Your task to perform on an android device: What's the weather like in Moscow? Image 0: 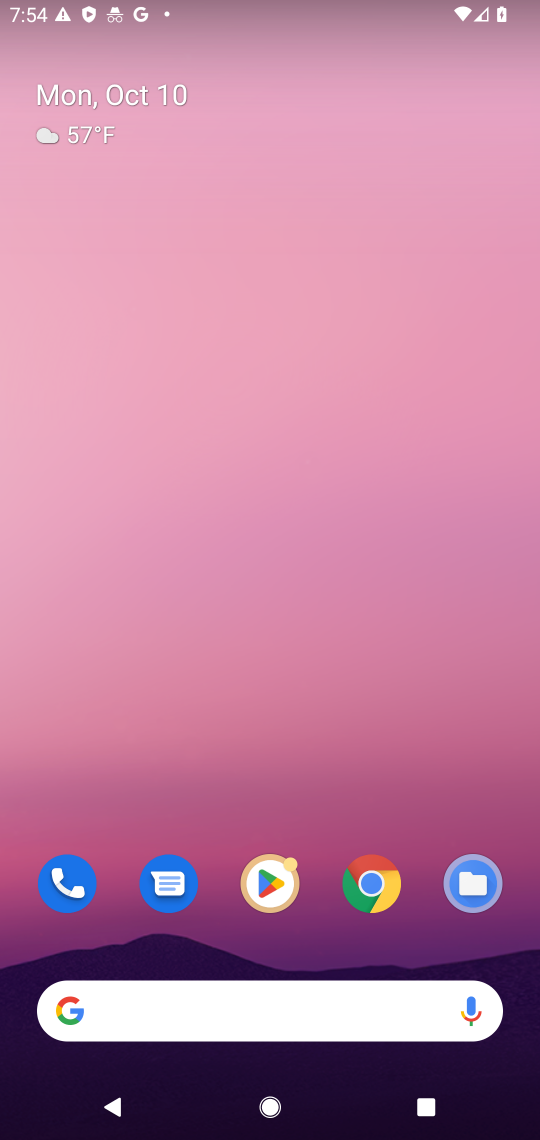
Step 0: drag from (223, 940) to (261, 568)
Your task to perform on an android device: What's the weather like in Moscow? Image 1: 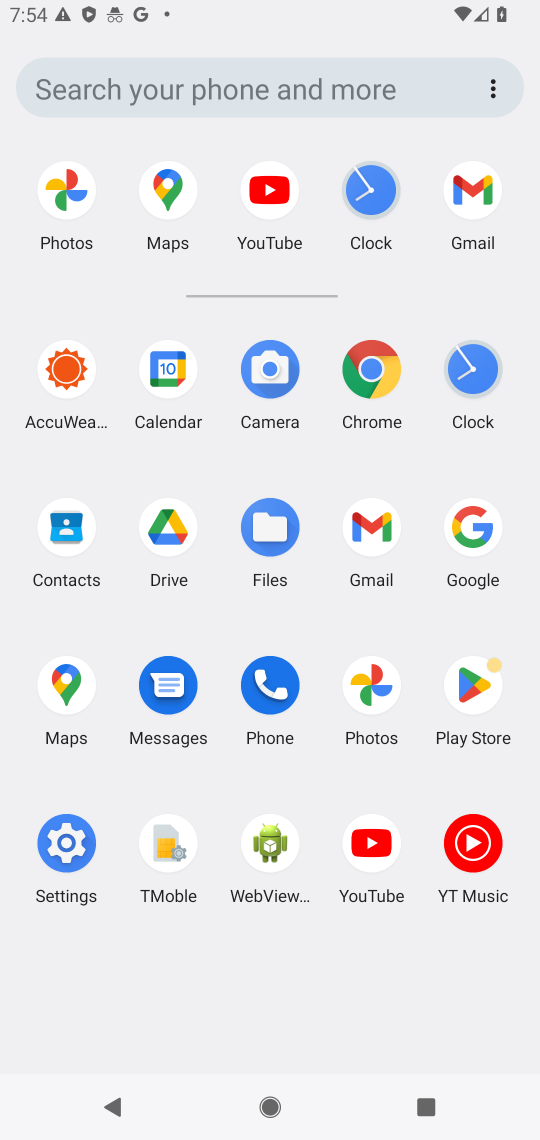
Step 1: click (484, 530)
Your task to perform on an android device: What's the weather like in Moscow? Image 2: 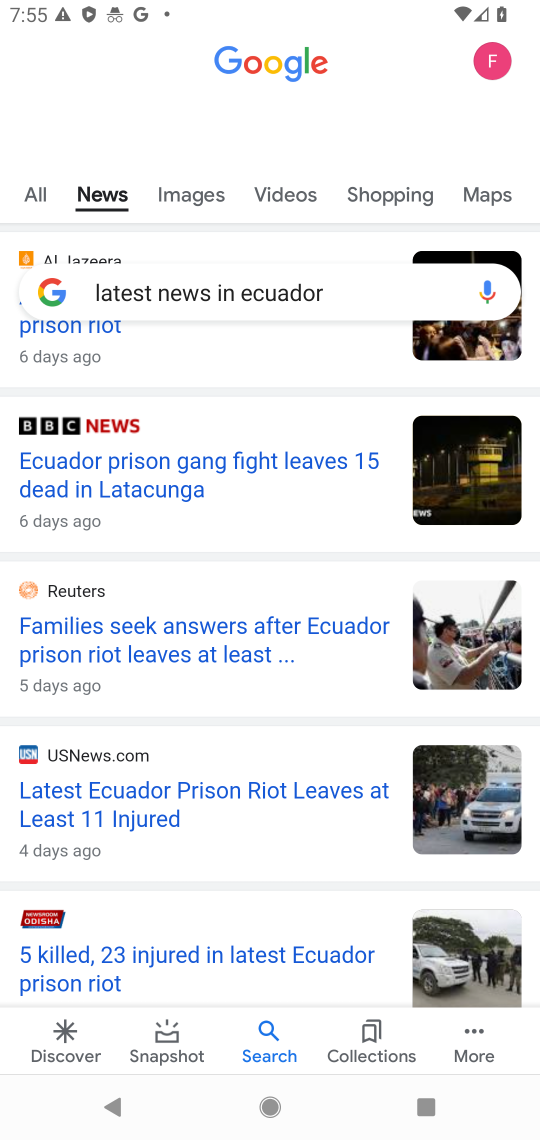
Step 2: click (406, 289)
Your task to perform on an android device: What's the weather like in Moscow? Image 3: 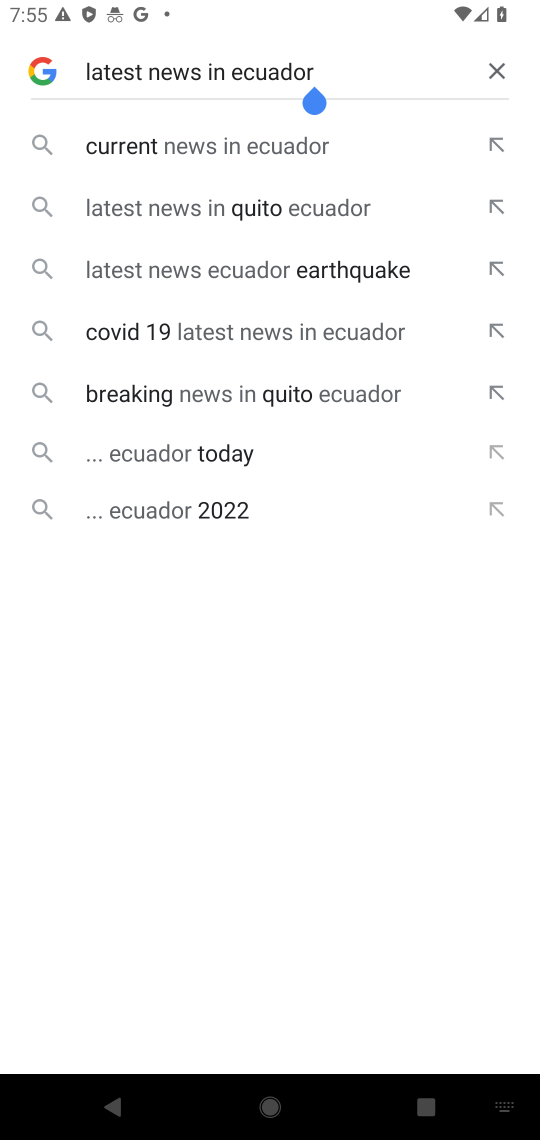
Step 3: click (488, 75)
Your task to perform on an android device: What's the weather like in Moscow? Image 4: 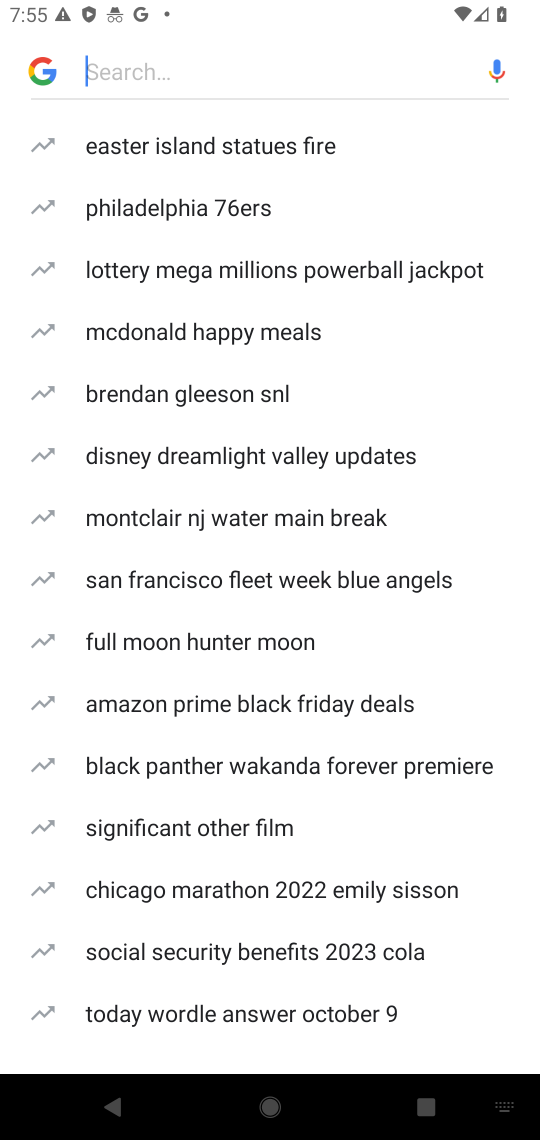
Step 4: type "weather like in Moscow"
Your task to perform on an android device: What's the weather like in Moscow? Image 5: 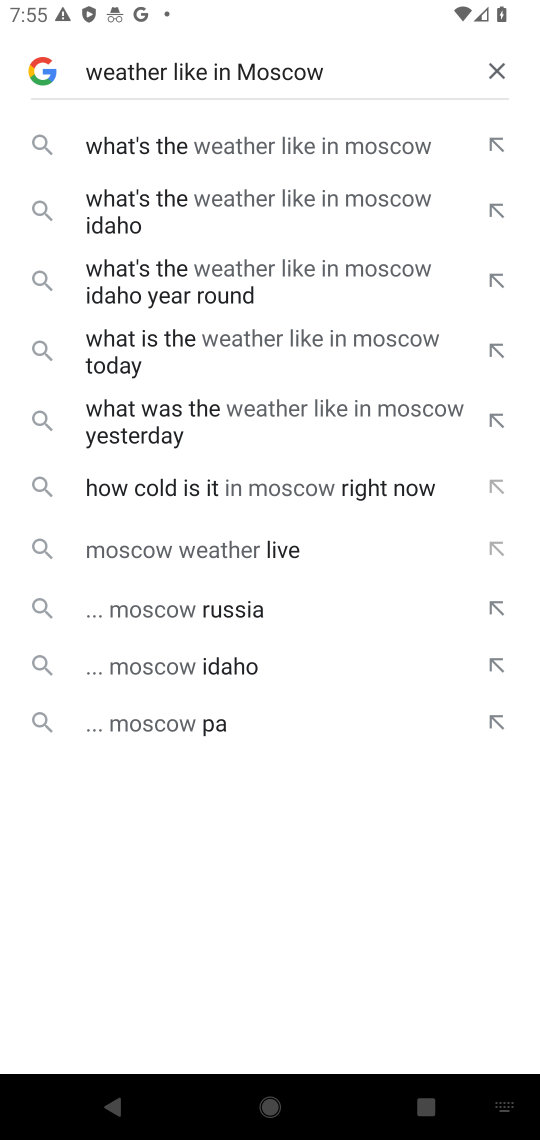
Step 5: click (261, 135)
Your task to perform on an android device: What's the weather like in Moscow? Image 6: 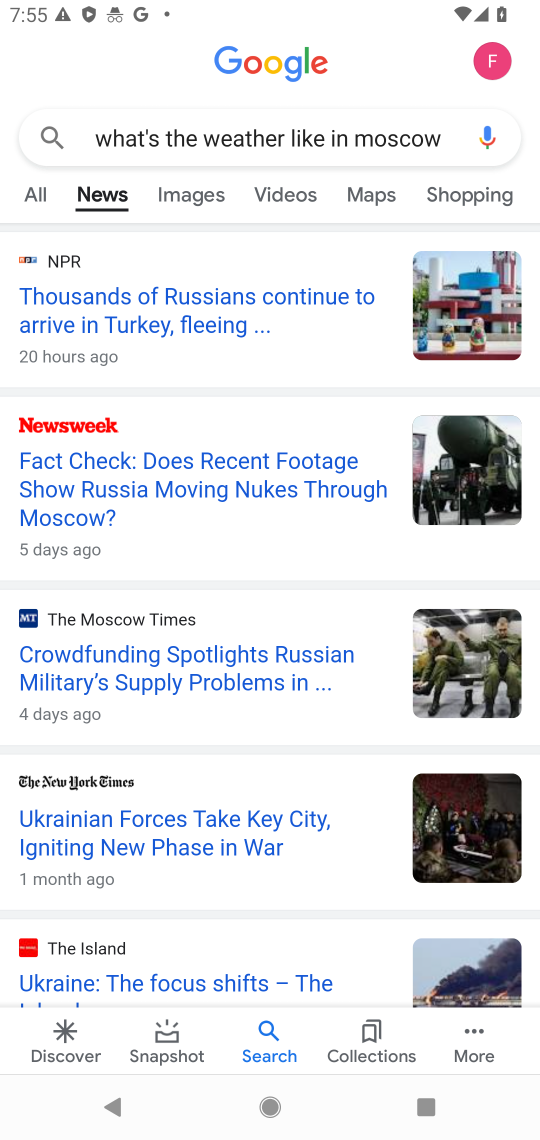
Step 6: task complete